Your task to perform on an android device: Open location settings Image 0: 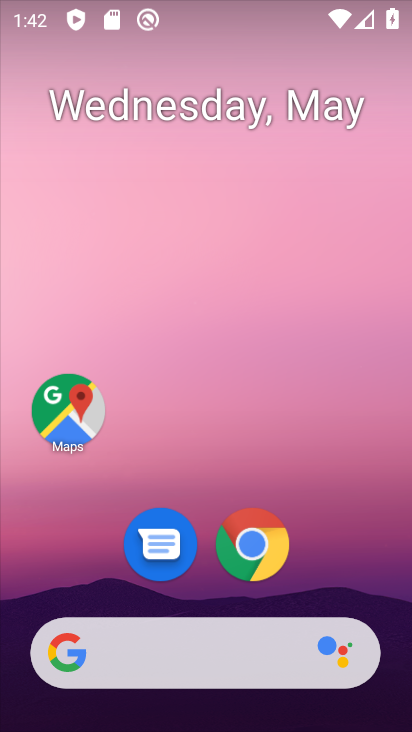
Step 0: drag from (391, 617) to (314, 163)
Your task to perform on an android device: Open location settings Image 1: 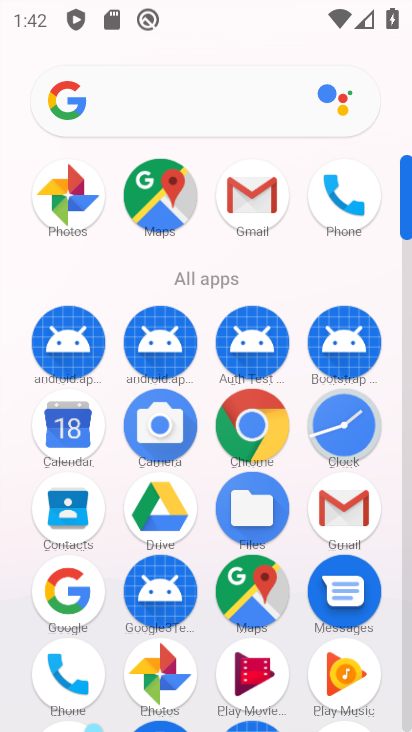
Step 1: click (410, 714)
Your task to perform on an android device: Open location settings Image 2: 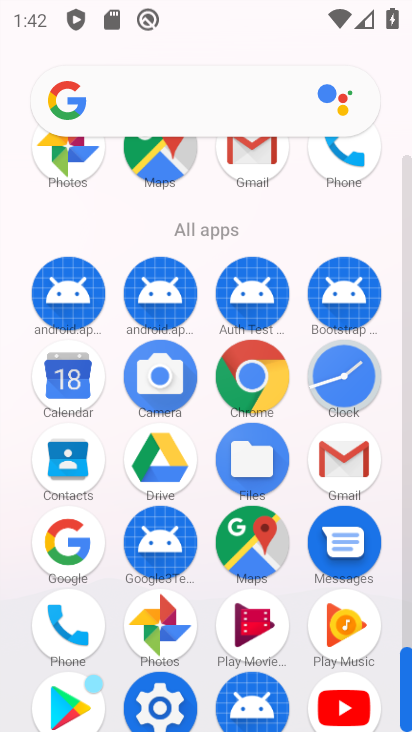
Step 2: click (181, 691)
Your task to perform on an android device: Open location settings Image 3: 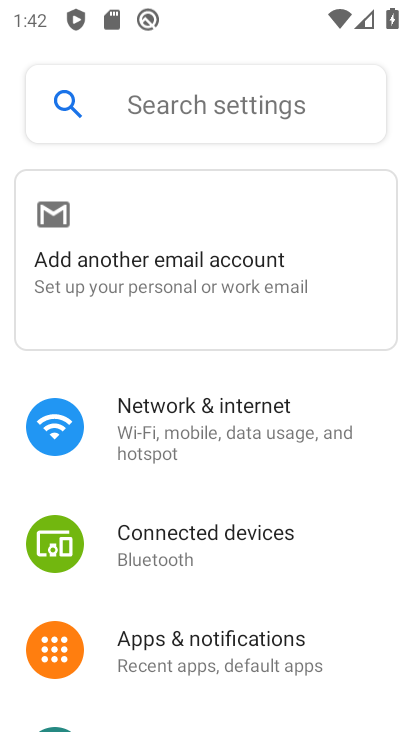
Step 3: drag from (344, 709) to (293, 151)
Your task to perform on an android device: Open location settings Image 4: 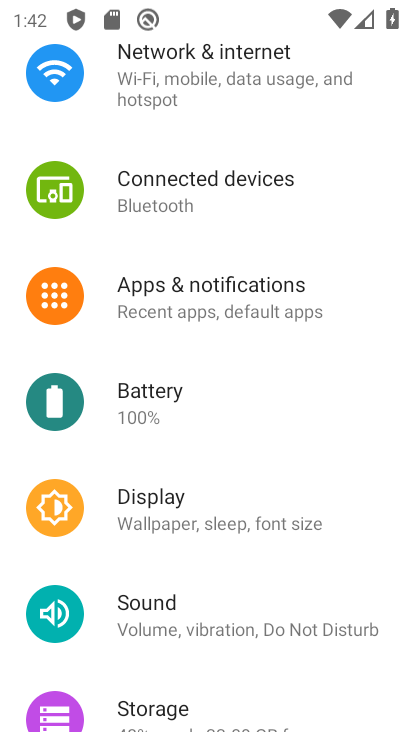
Step 4: drag from (303, 560) to (316, 124)
Your task to perform on an android device: Open location settings Image 5: 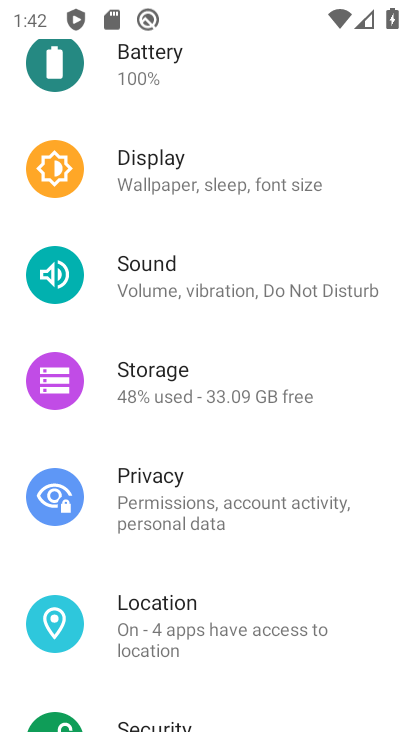
Step 5: click (280, 621)
Your task to perform on an android device: Open location settings Image 6: 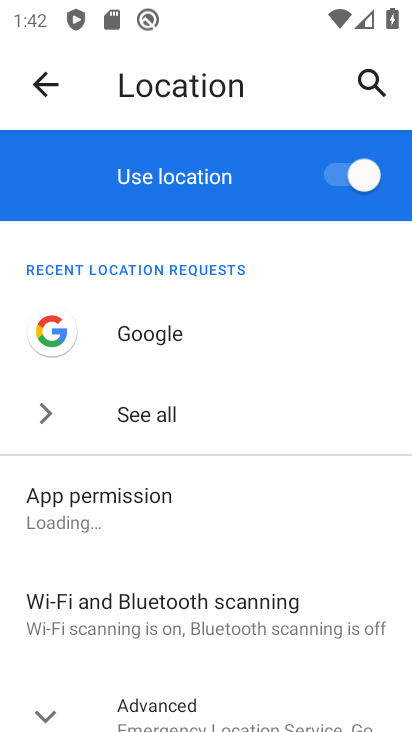
Step 6: task complete